Your task to perform on an android device: turn off translation in the chrome app Image 0: 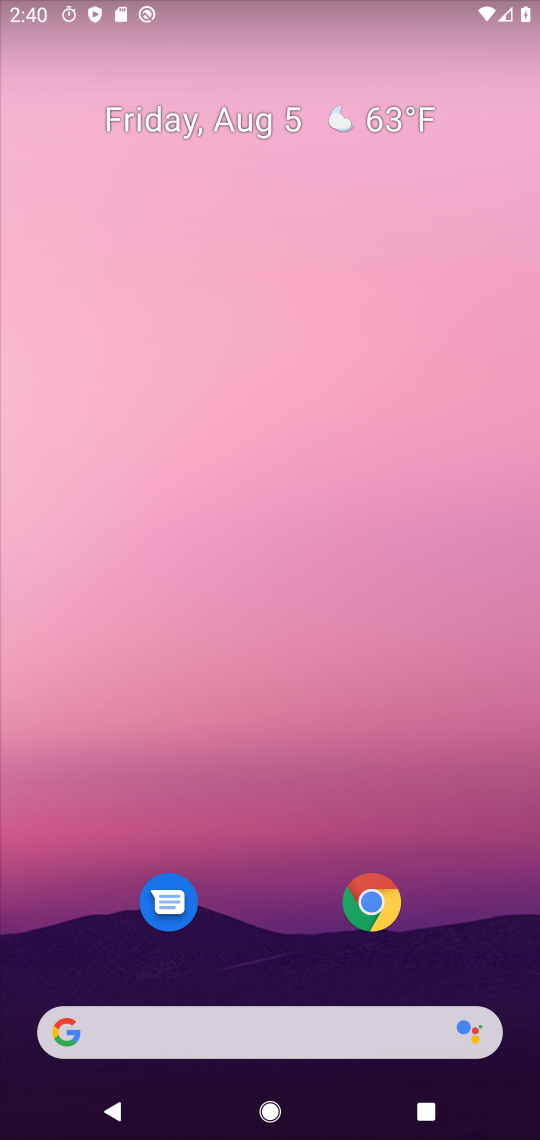
Step 0: press home button
Your task to perform on an android device: turn off translation in the chrome app Image 1: 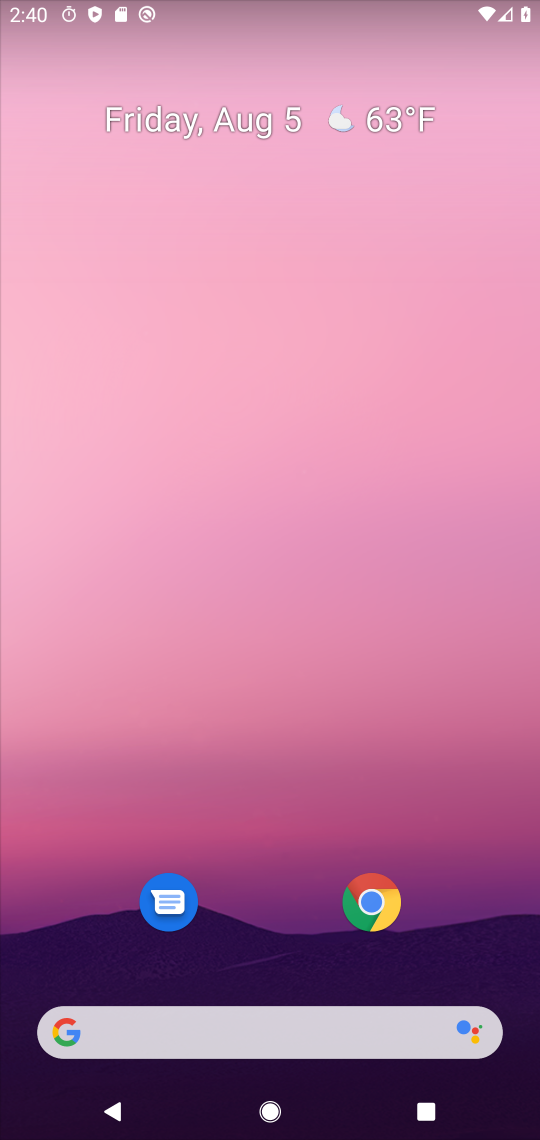
Step 1: drag from (375, 1072) to (243, 220)
Your task to perform on an android device: turn off translation in the chrome app Image 2: 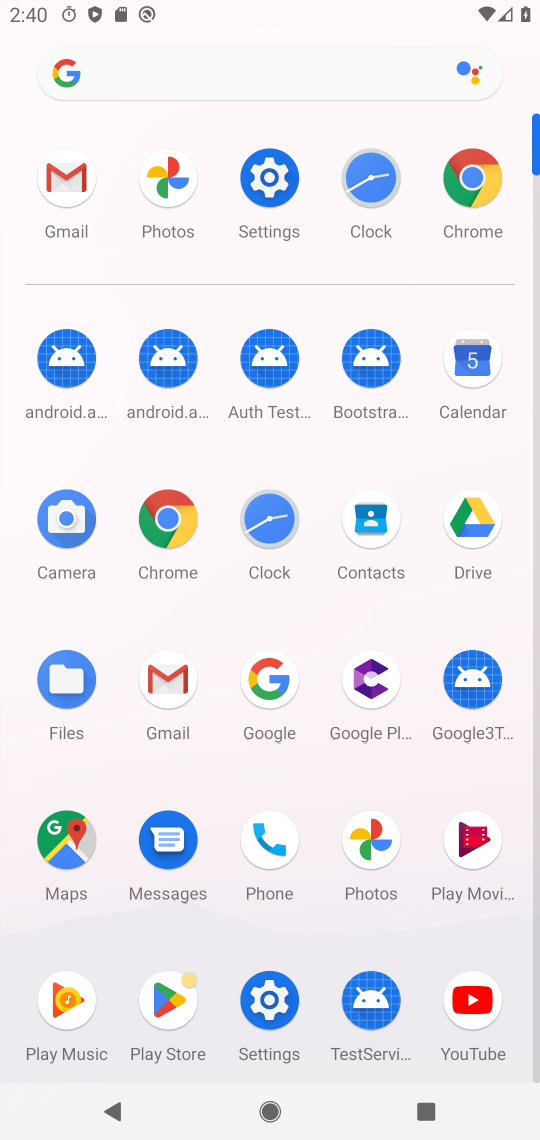
Step 2: click (470, 176)
Your task to perform on an android device: turn off translation in the chrome app Image 3: 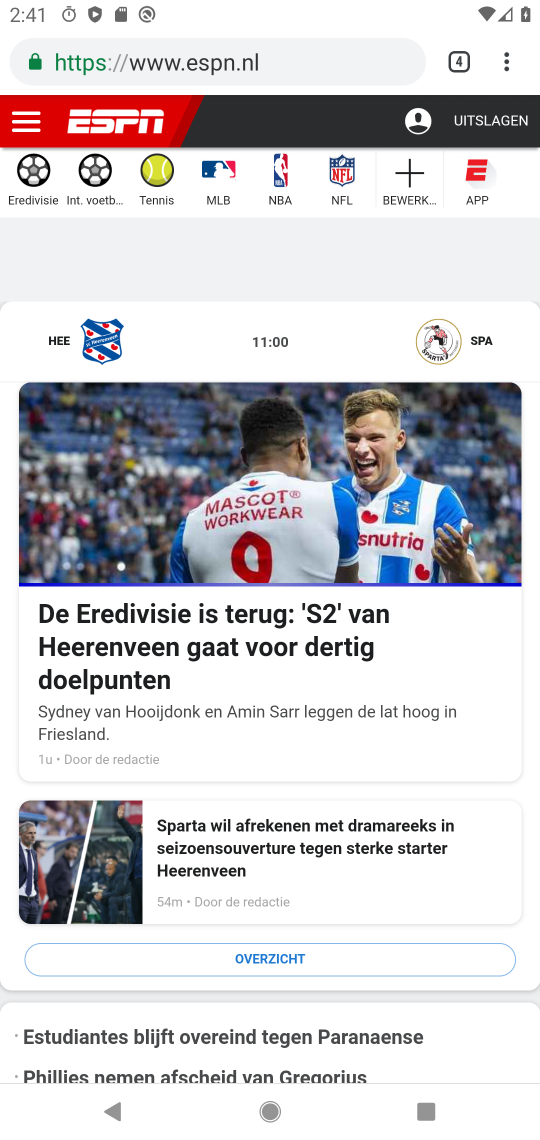
Step 3: click (500, 56)
Your task to perform on an android device: turn off translation in the chrome app Image 4: 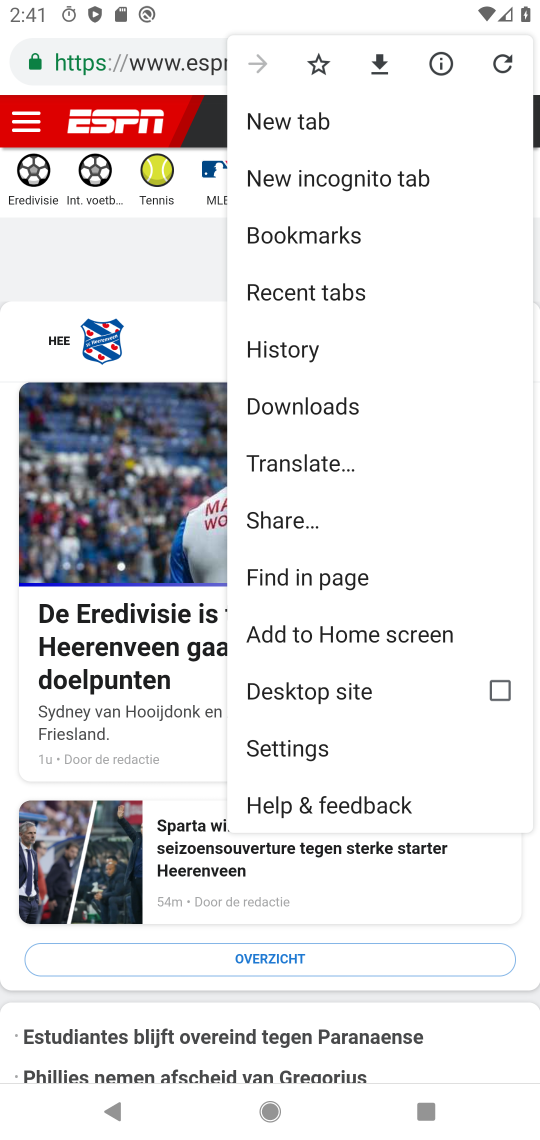
Step 4: click (280, 743)
Your task to perform on an android device: turn off translation in the chrome app Image 5: 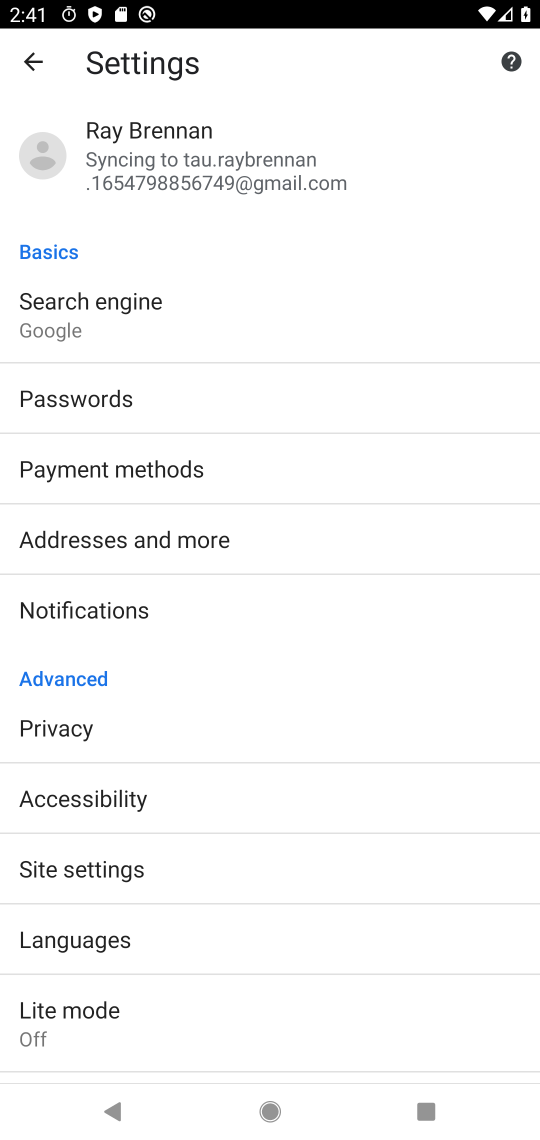
Step 5: click (135, 866)
Your task to perform on an android device: turn off translation in the chrome app Image 6: 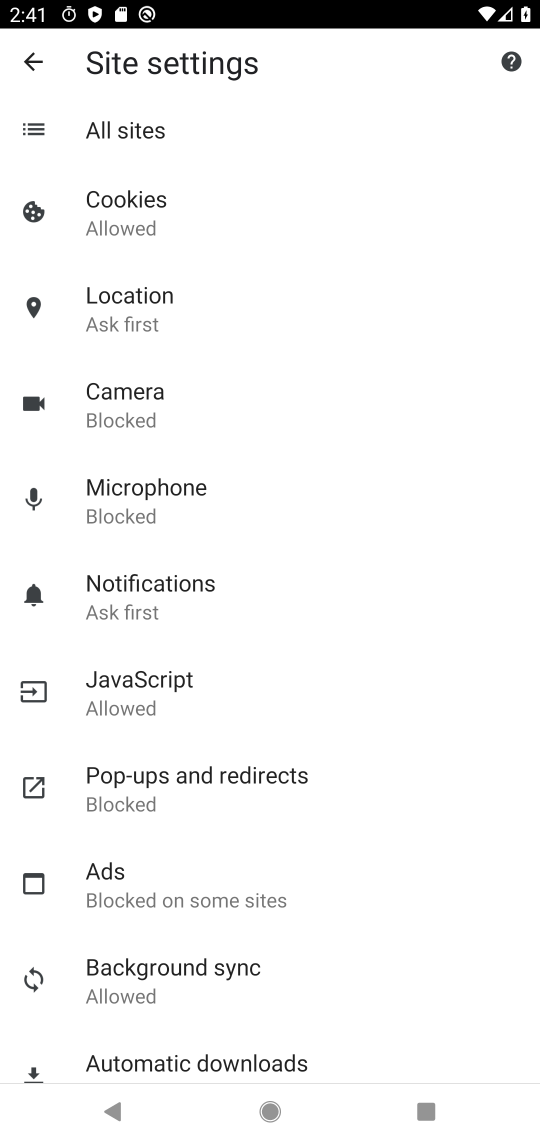
Step 6: click (39, 72)
Your task to perform on an android device: turn off translation in the chrome app Image 7: 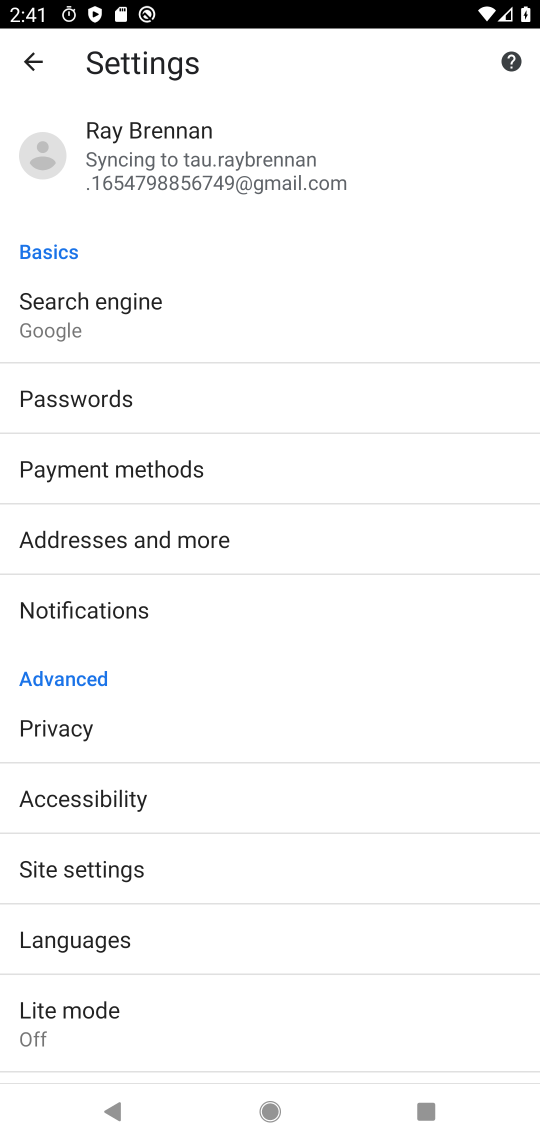
Step 7: drag from (226, 1010) to (233, 929)
Your task to perform on an android device: turn off translation in the chrome app Image 8: 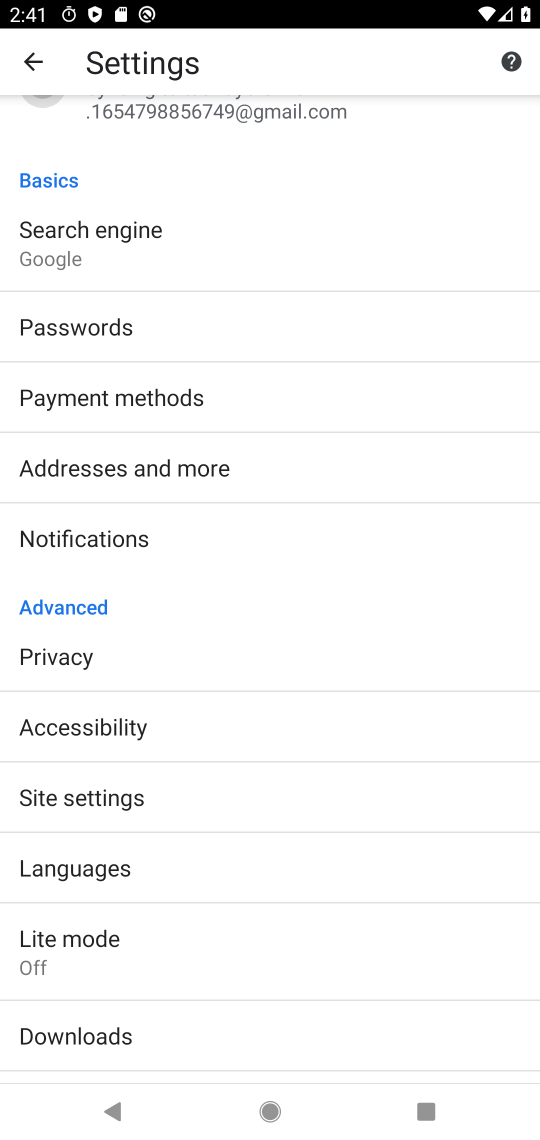
Step 8: click (200, 870)
Your task to perform on an android device: turn off translation in the chrome app Image 9: 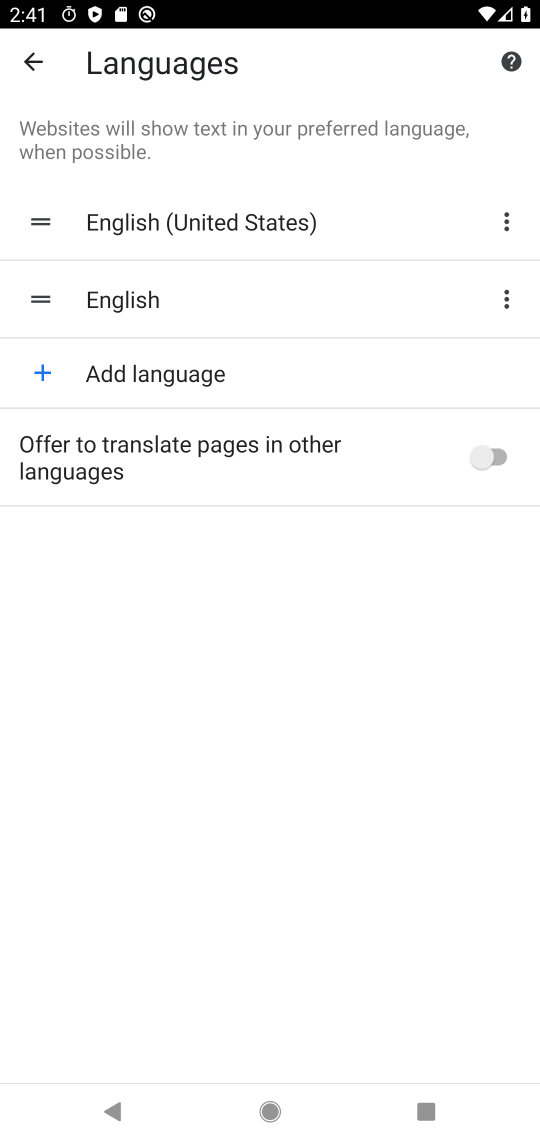
Step 9: click (483, 439)
Your task to perform on an android device: turn off translation in the chrome app Image 10: 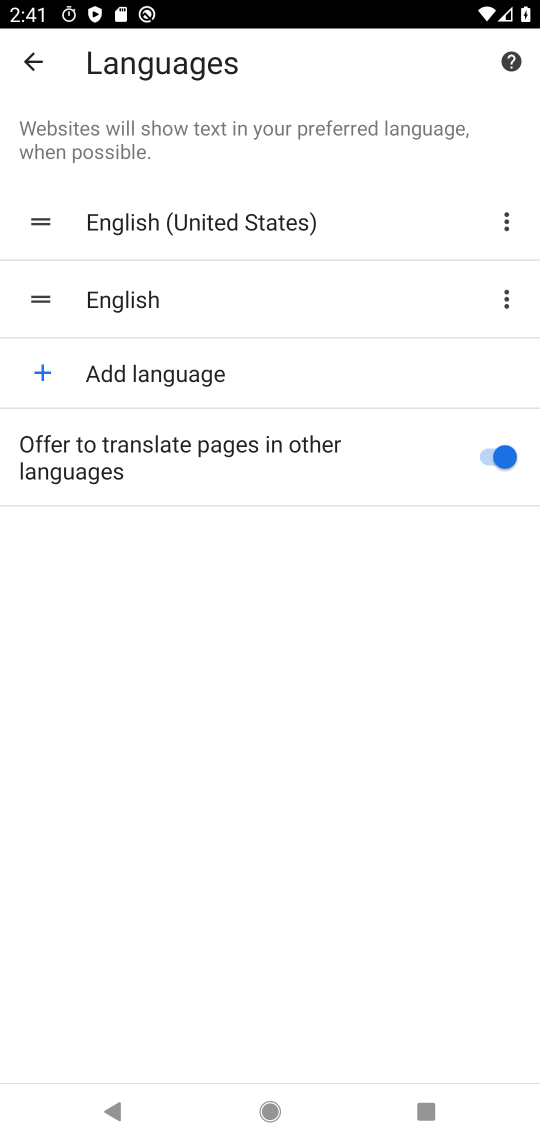
Step 10: click (498, 434)
Your task to perform on an android device: turn off translation in the chrome app Image 11: 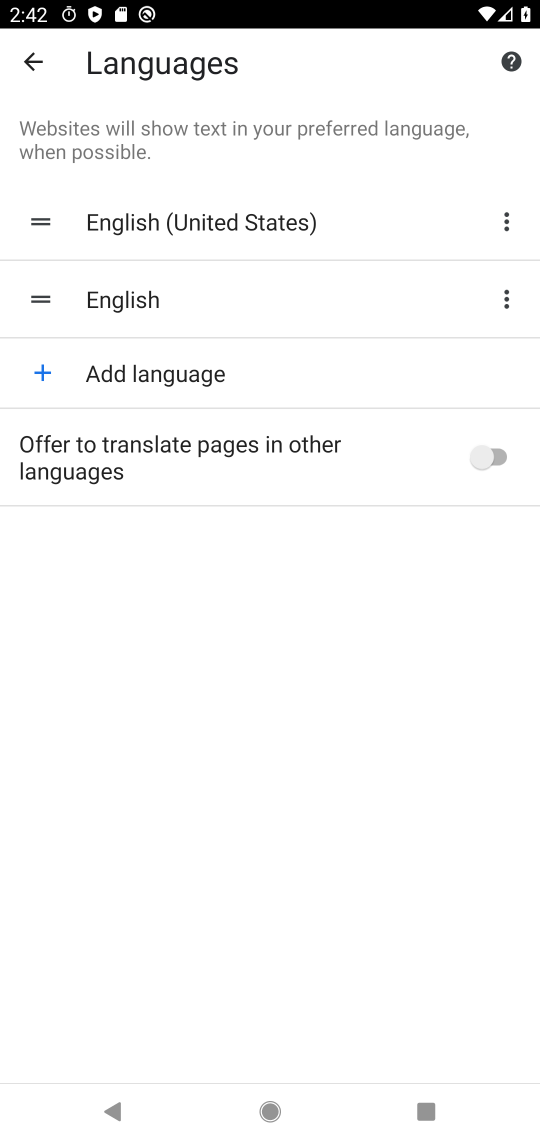
Step 11: task complete